Your task to perform on an android device: Open accessibility settings Image 0: 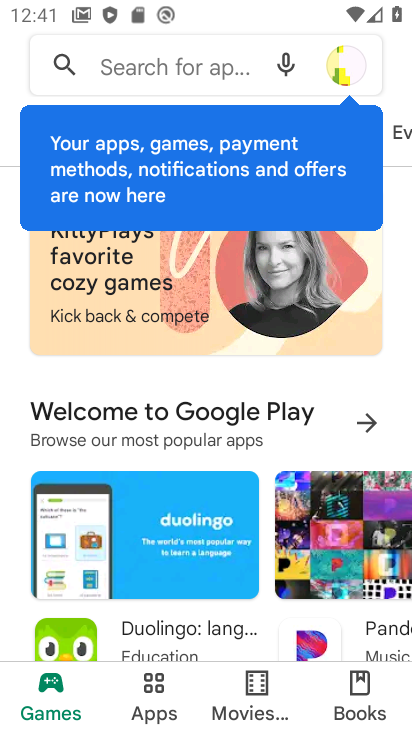
Step 0: press home button
Your task to perform on an android device: Open accessibility settings Image 1: 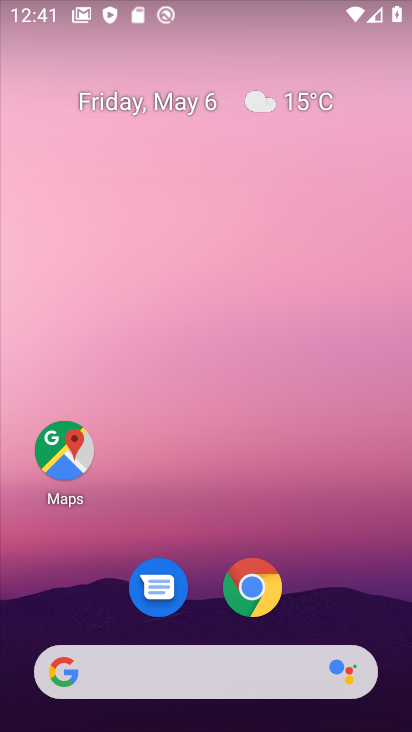
Step 1: drag from (328, 599) to (221, 30)
Your task to perform on an android device: Open accessibility settings Image 2: 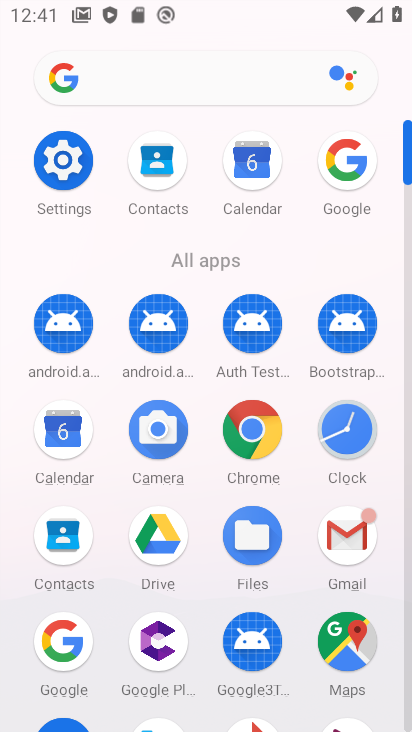
Step 2: click (56, 173)
Your task to perform on an android device: Open accessibility settings Image 3: 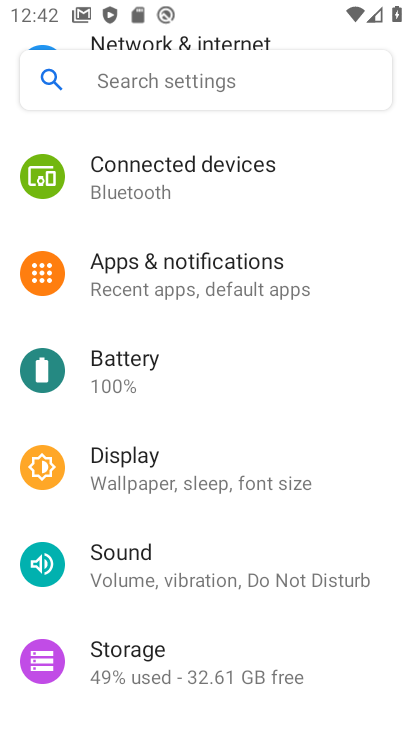
Step 3: drag from (230, 320) to (260, 70)
Your task to perform on an android device: Open accessibility settings Image 4: 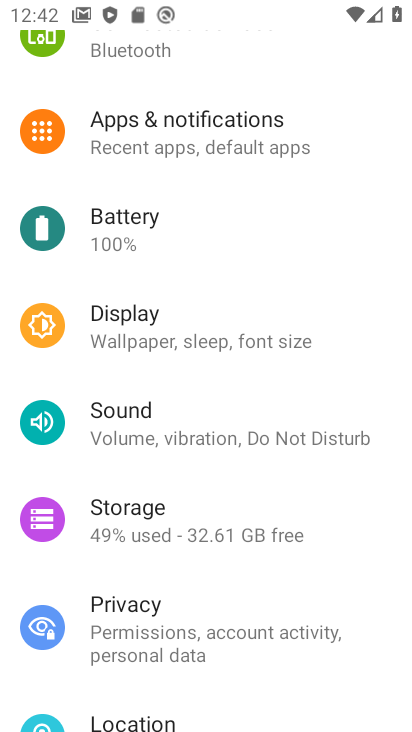
Step 4: drag from (198, 568) to (210, 128)
Your task to perform on an android device: Open accessibility settings Image 5: 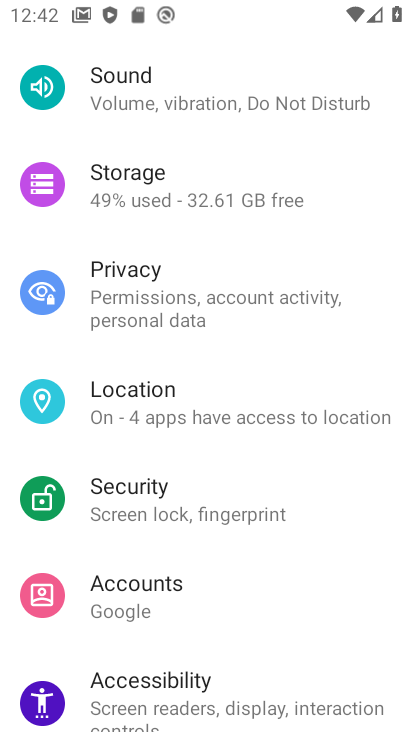
Step 5: click (166, 701)
Your task to perform on an android device: Open accessibility settings Image 6: 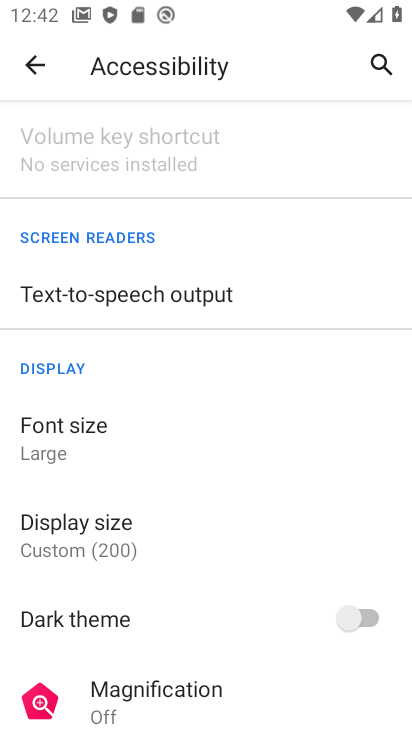
Step 6: task complete